Your task to perform on an android device: Do I have any events today? Image 0: 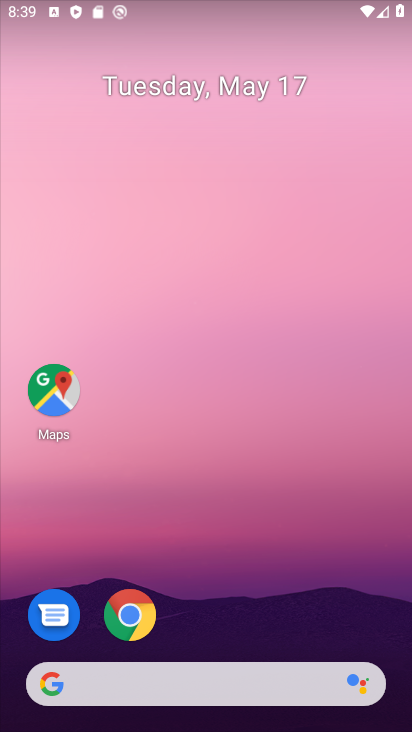
Step 0: drag from (403, 627) to (306, 66)
Your task to perform on an android device: Do I have any events today? Image 1: 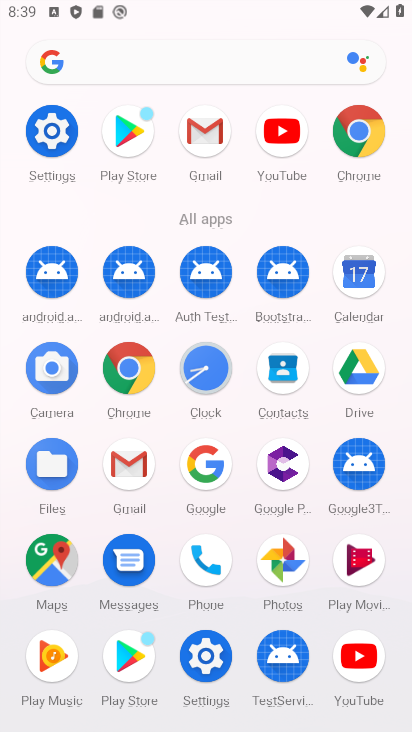
Step 1: click (358, 271)
Your task to perform on an android device: Do I have any events today? Image 2: 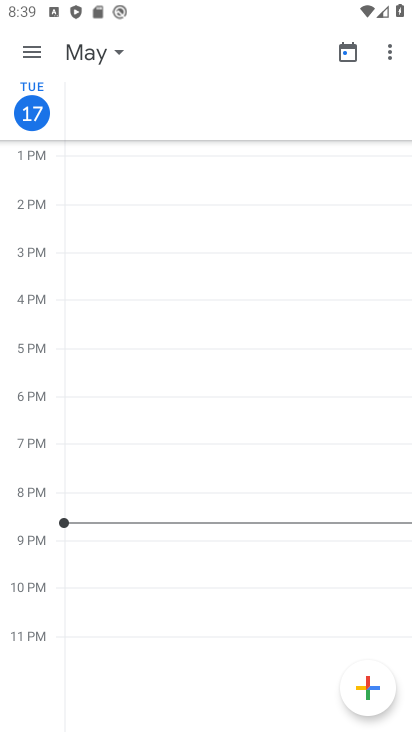
Step 2: click (31, 55)
Your task to perform on an android device: Do I have any events today? Image 3: 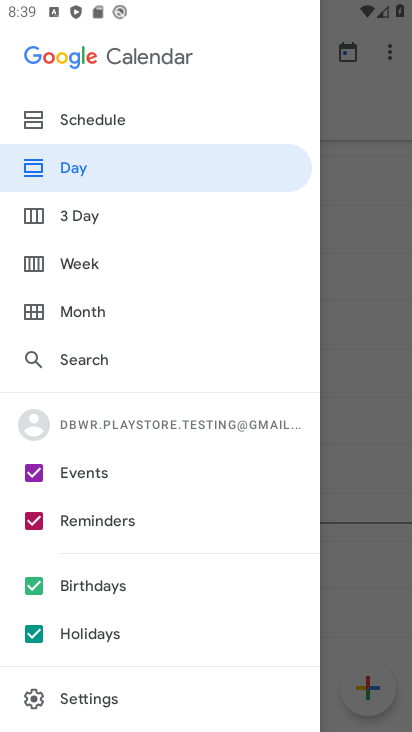
Step 3: click (377, 351)
Your task to perform on an android device: Do I have any events today? Image 4: 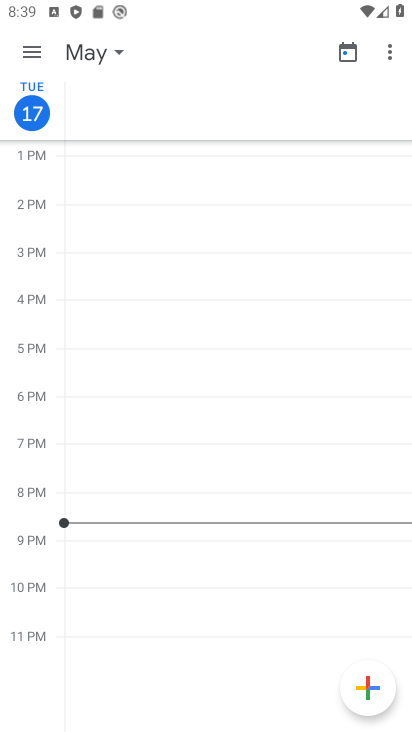
Step 4: task complete